Your task to perform on an android device: Open eBay Image 0: 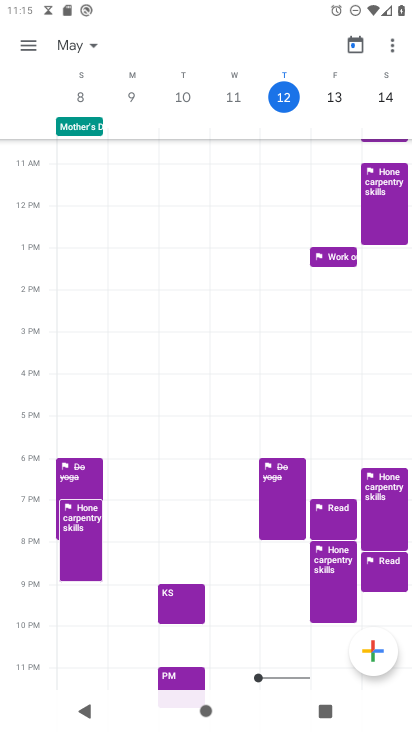
Step 0: press home button
Your task to perform on an android device: Open eBay Image 1: 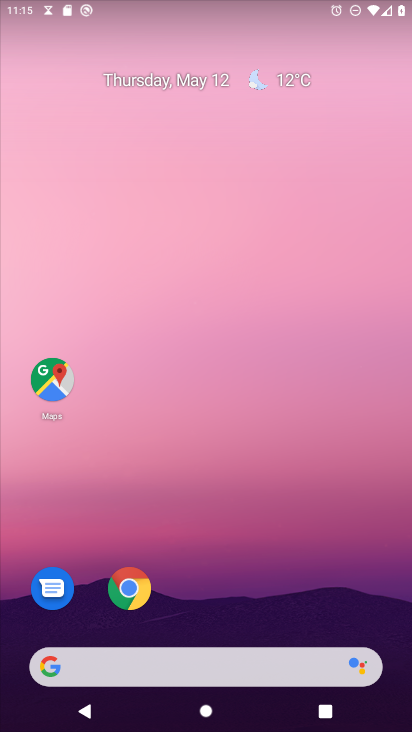
Step 1: click (129, 588)
Your task to perform on an android device: Open eBay Image 2: 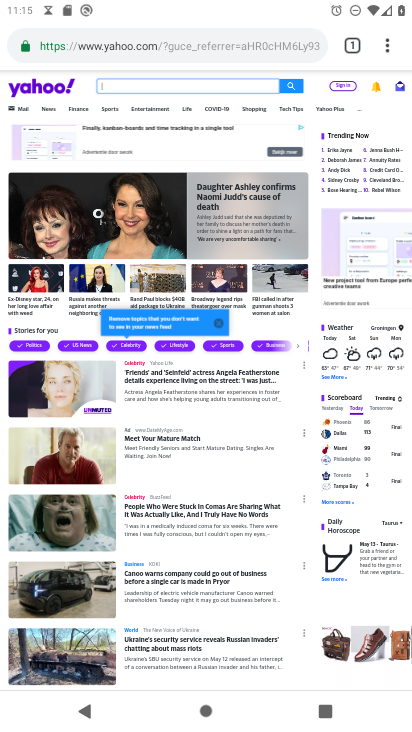
Step 2: click (277, 42)
Your task to perform on an android device: Open eBay Image 3: 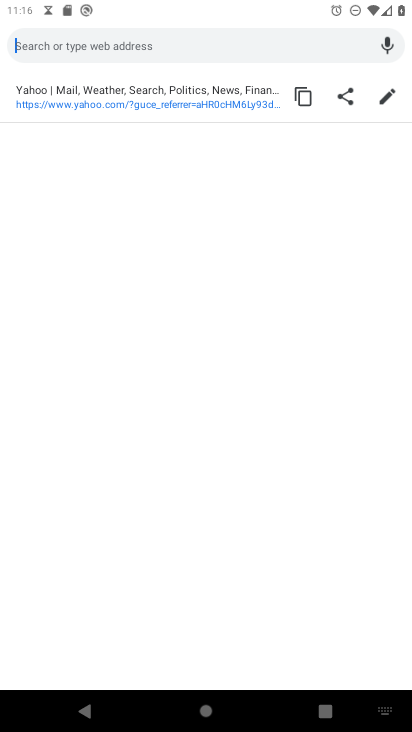
Step 3: type "eBay"
Your task to perform on an android device: Open eBay Image 4: 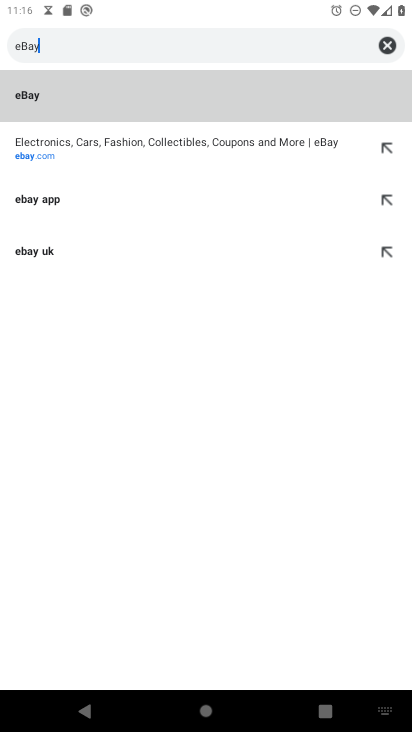
Step 4: click (47, 80)
Your task to perform on an android device: Open eBay Image 5: 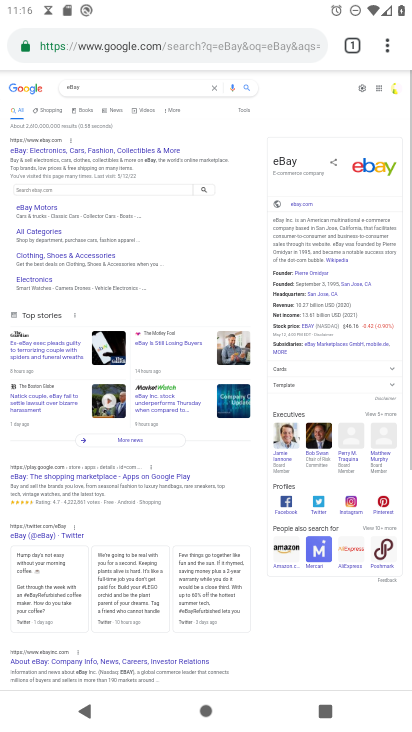
Step 5: click (61, 150)
Your task to perform on an android device: Open eBay Image 6: 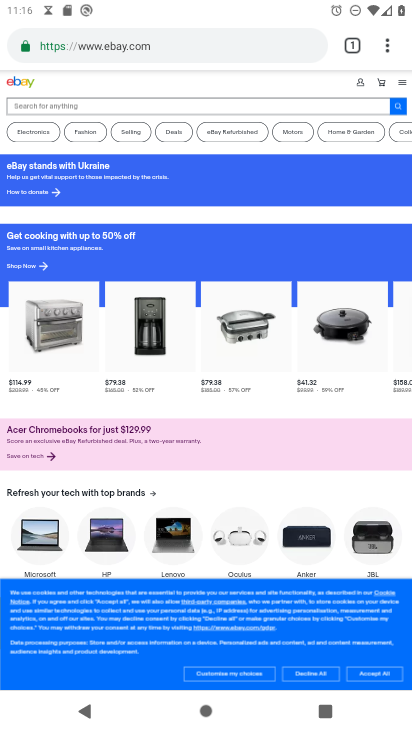
Step 6: task complete